Your task to perform on an android device: uninstall "Google Keep" Image 0: 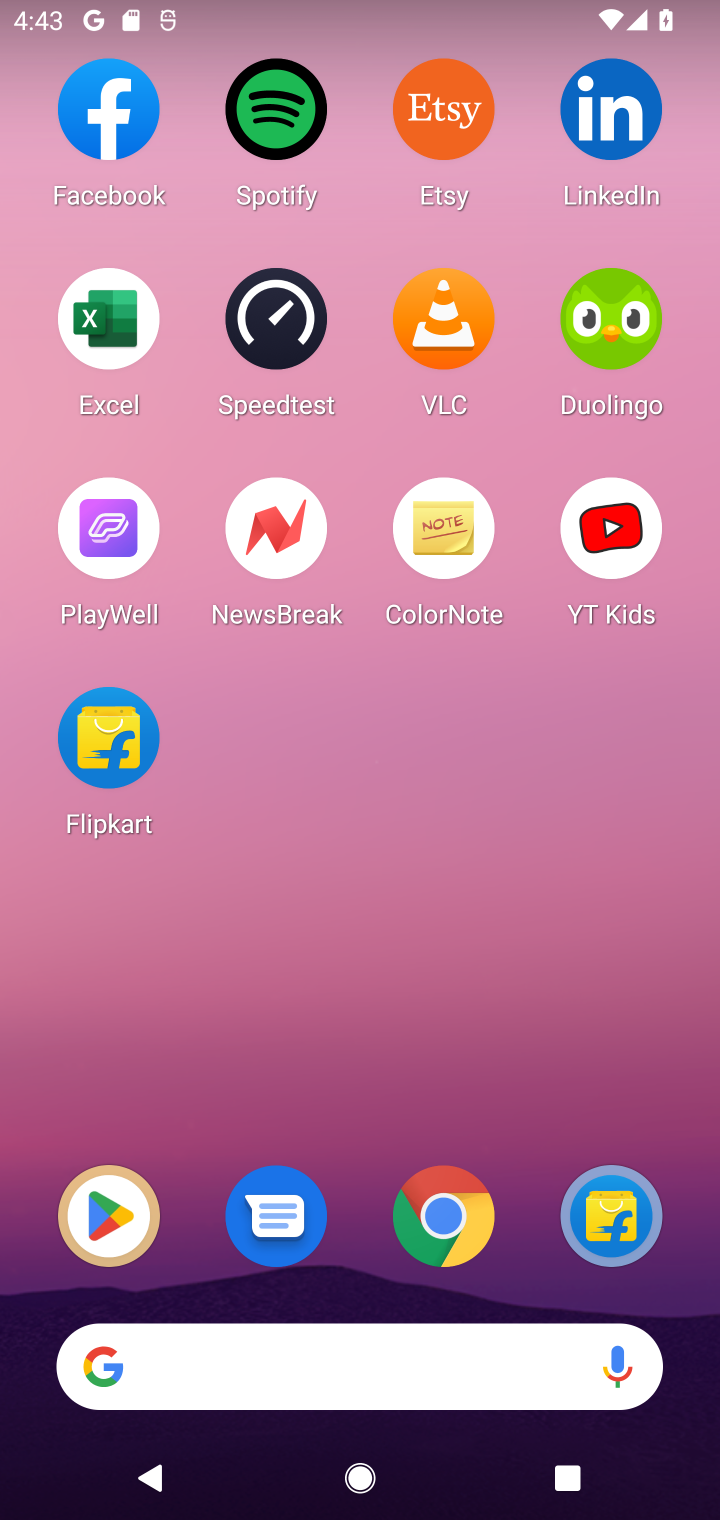
Step 0: click (124, 1207)
Your task to perform on an android device: uninstall "Google Keep" Image 1: 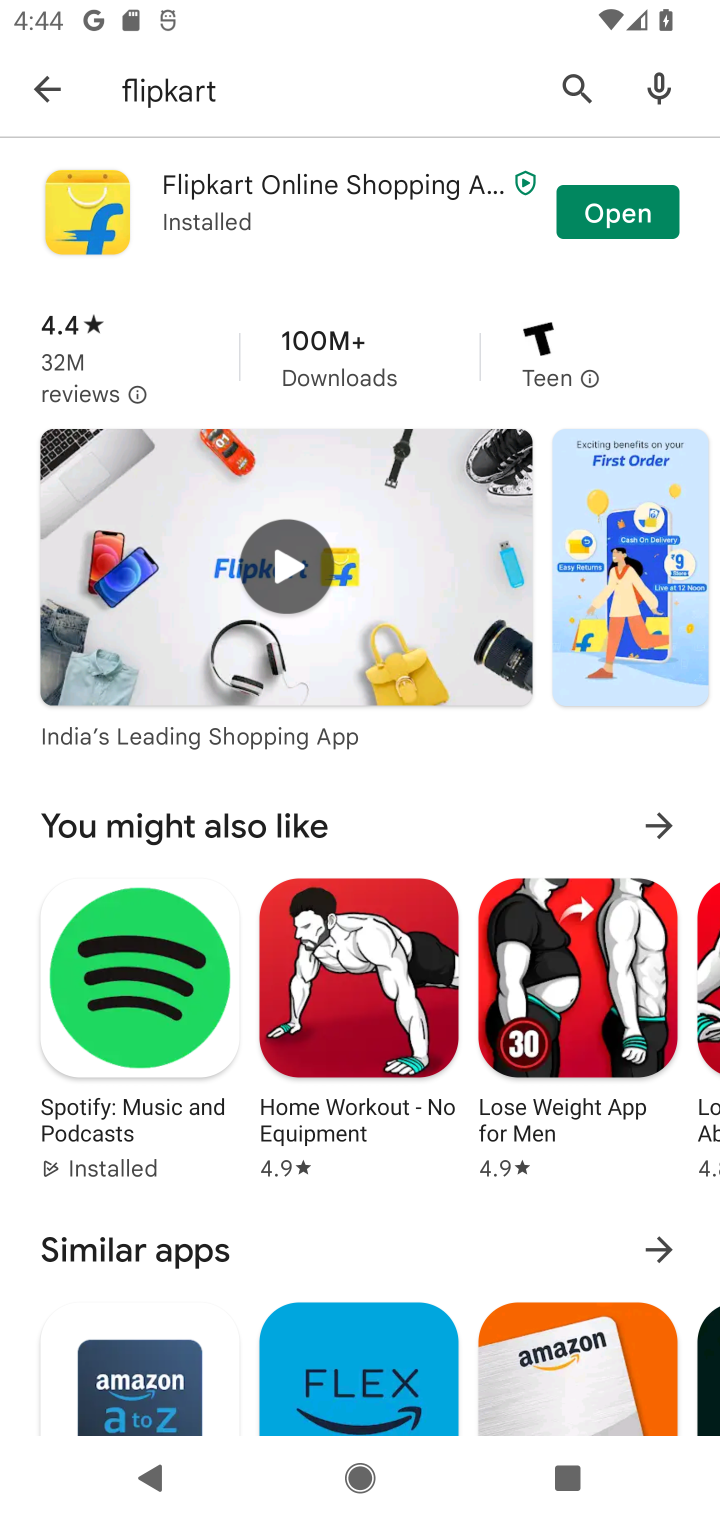
Step 1: click (571, 99)
Your task to perform on an android device: uninstall "Google Keep" Image 2: 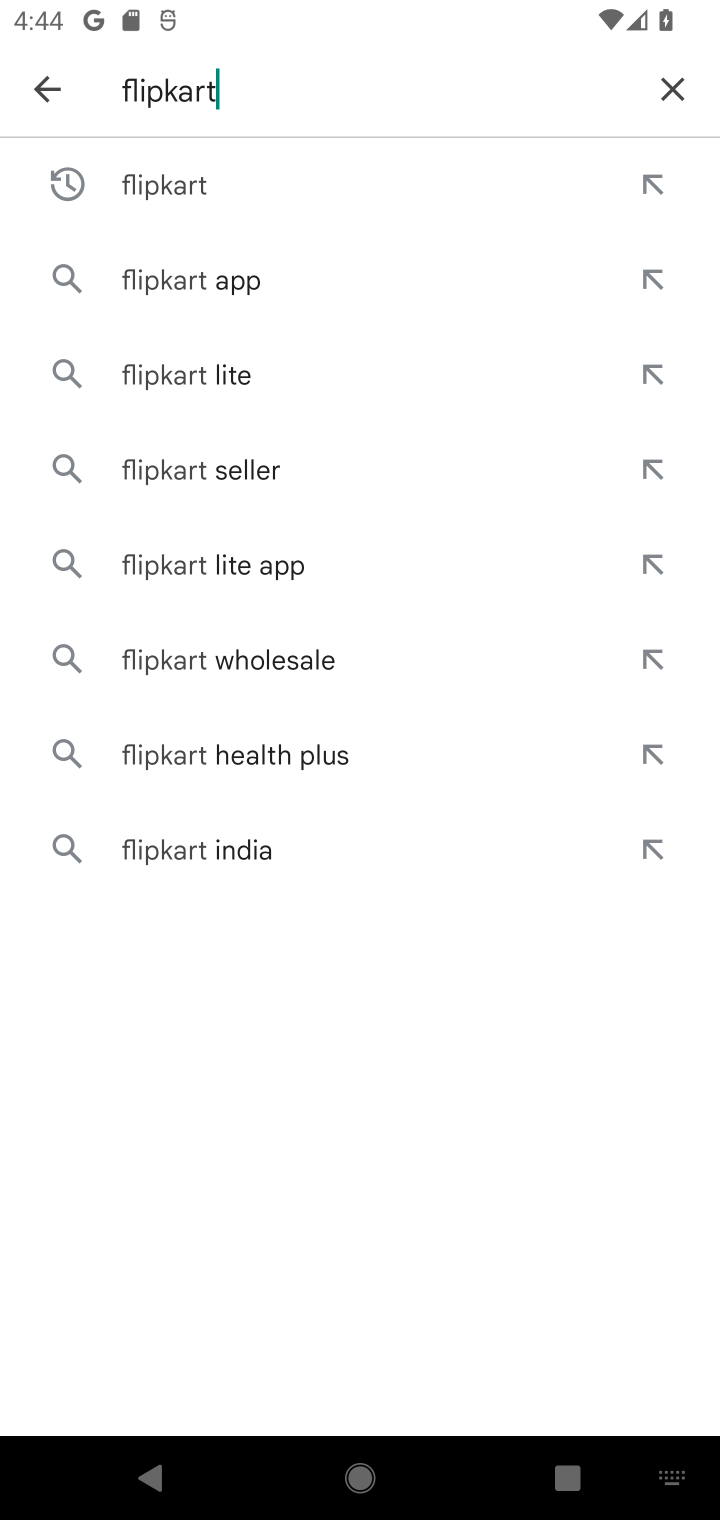
Step 2: click (664, 104)
Your task to perform on an android device: uninstall "Google Keep" Image 3: 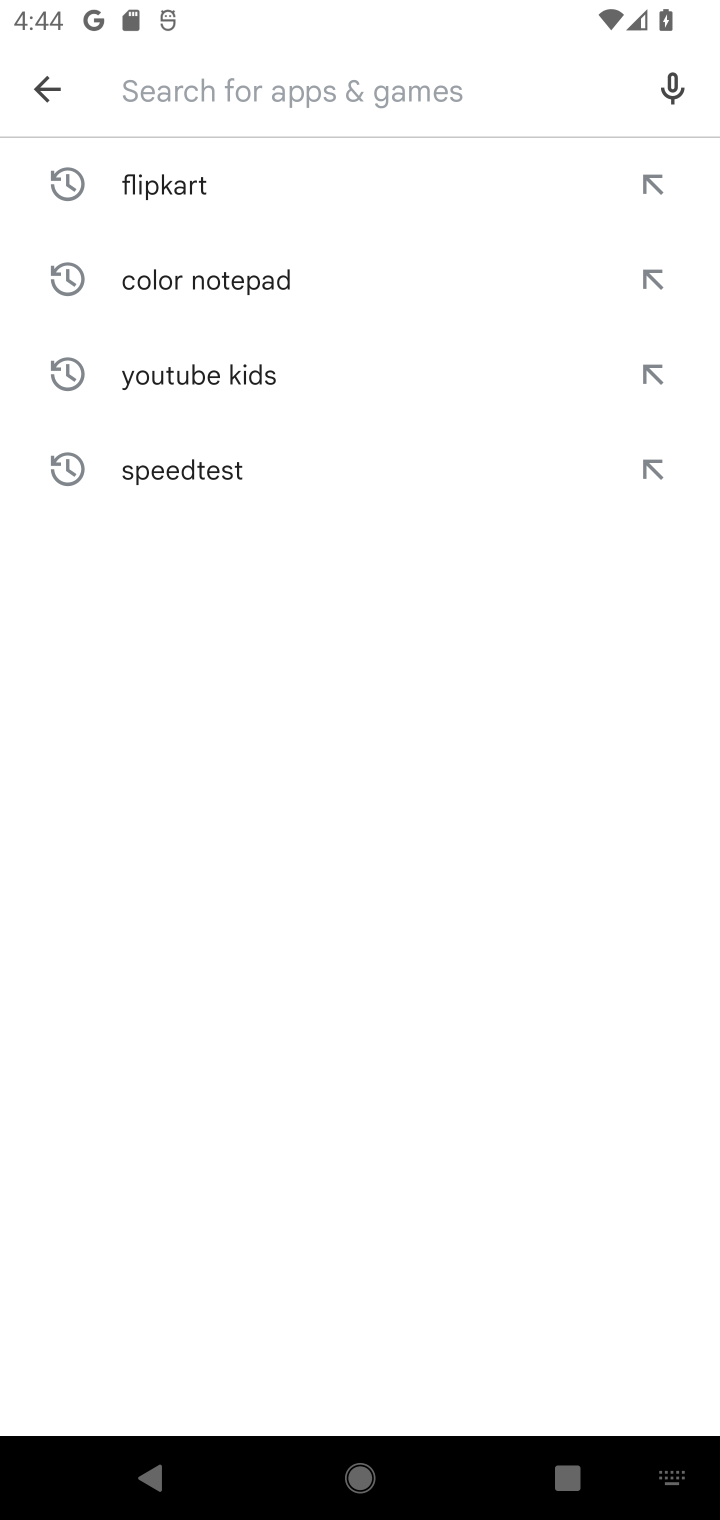
Step 3: type "google keeps"
Your task to perform on an android device: uninstall "Google Keep" Image 4: 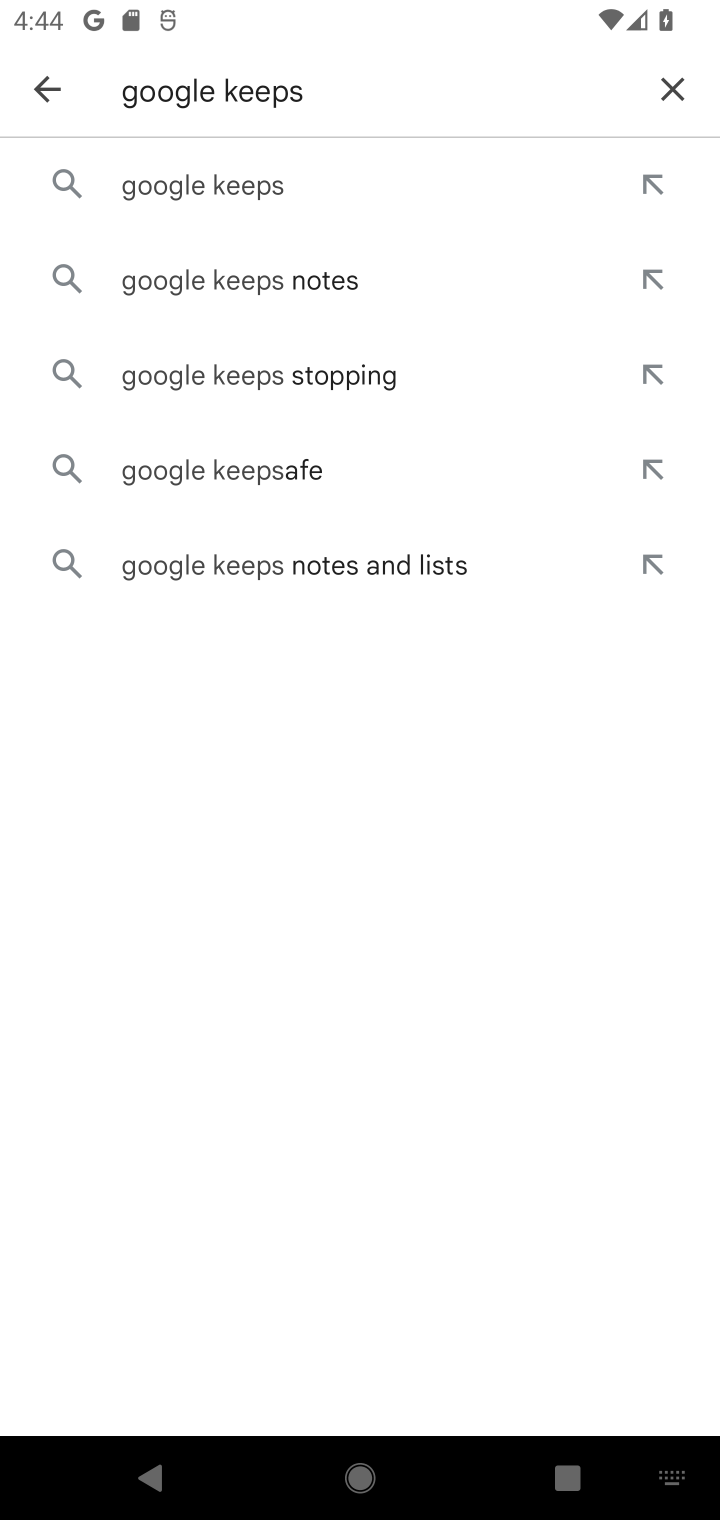
Step 4: click (269, 179)
Your task to perform on an android device: uninstall "Google Keep" Image 5: 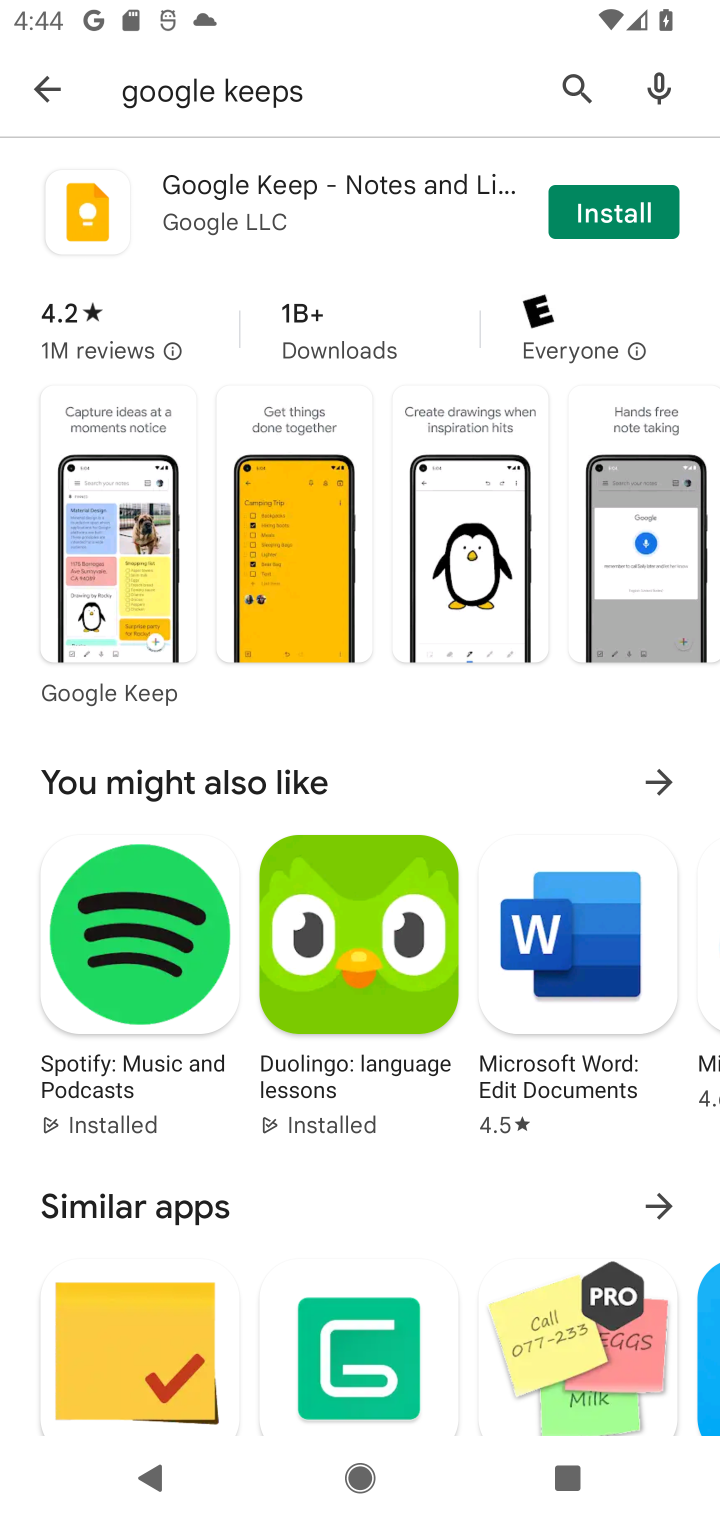
Step 5: click (618, 206)
Your task to perform on an android device: uninstall "Google Keep" Image 6: 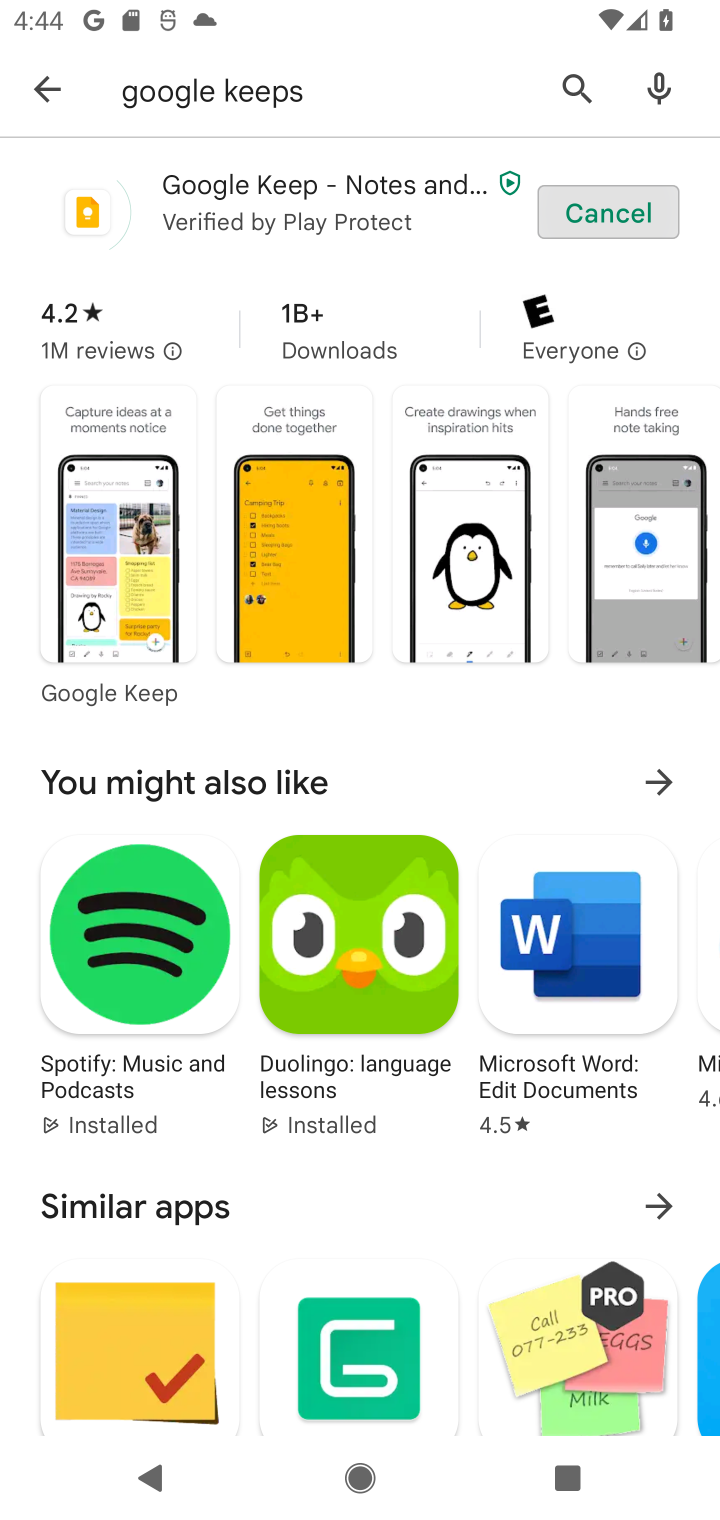
Step 6: task complete